Your task to perform on an android device: read, delete, or share a saved page in the chrome app Image 0: 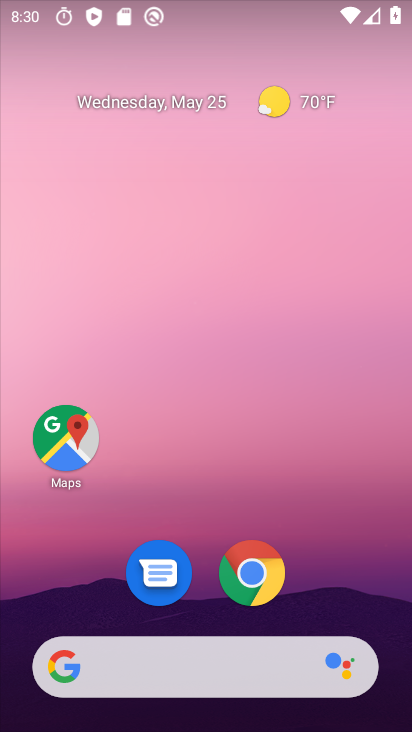
Step 0: drag from (389, 603) to (399, 146)
Your task to perform on an android device: read, delete, or share a saved page in the chrome app Image 1: 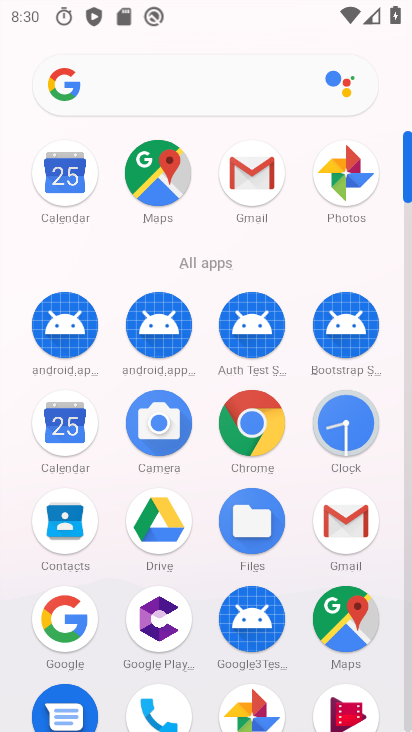
Step 1: click (274, 428)
Your task to perform on an android device: read, delete, or share a saved page in the chrome app Image 2: 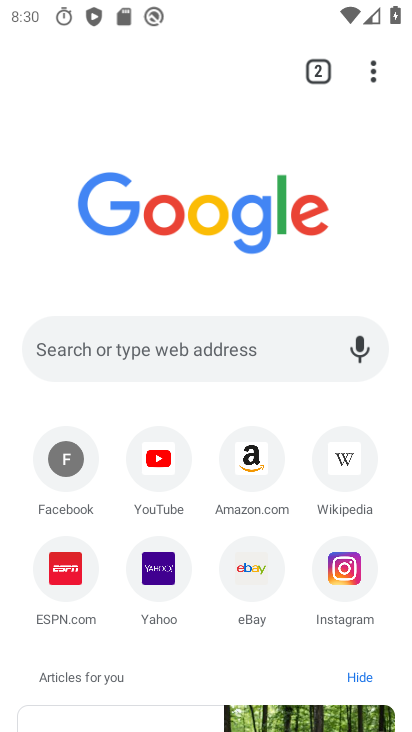
Step 2: click (375, 86)
Your task to perform on an android device: read, delete, or share a saved page in the chrome app Image 3: 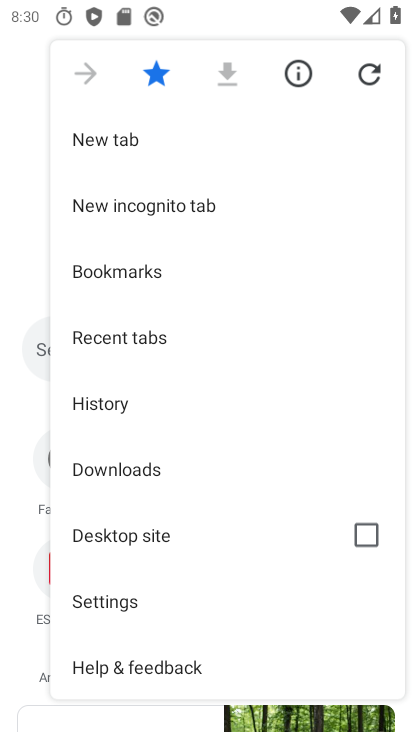
Step 3: click (131, 462)
Your task to perform on an android device: read, delete, or share a saved page in the chrome app Image 4: 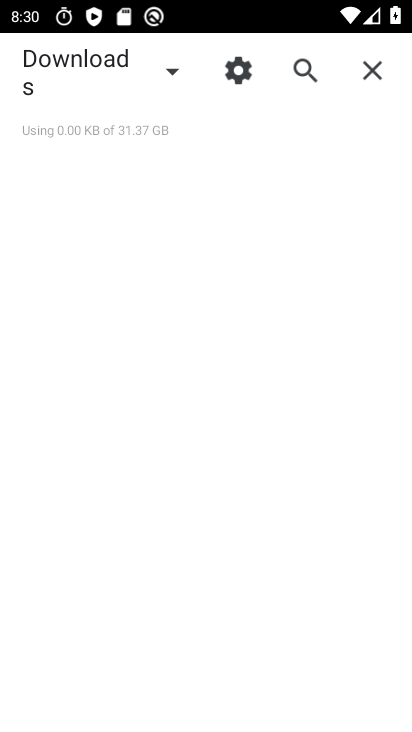
Step 4: click (145, 73)
Your task to perform on an android device: read, delete, or share a saved page in the chrome app Image 5: 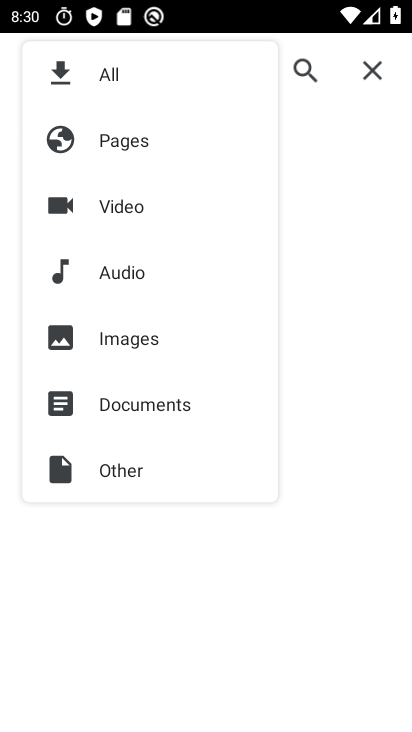
Step 5: click (142, 128)
Your task to perform on an android device: read, delete, or share a saved page in the chrome app Image 6: 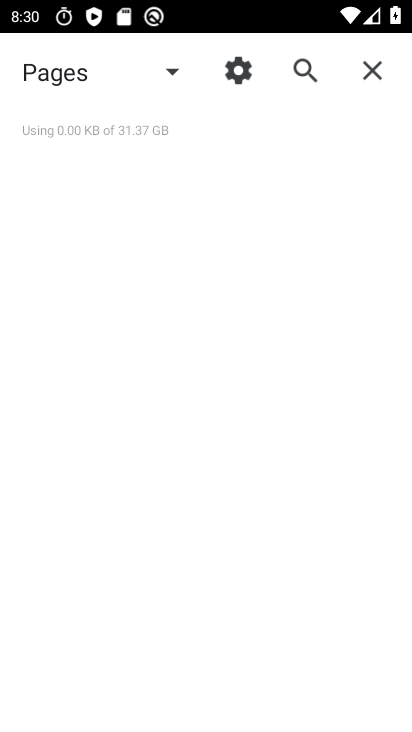
Step 6: task complete